Your task to perform on an android device: toggle notification dots Image 0: 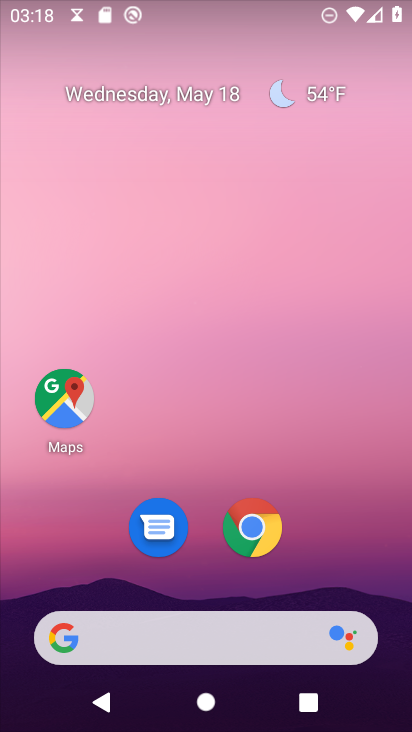
Step 0: drag from (230, 611) to (154, 56)
Your task to perform on an android device: toggle notification dots Image 1: 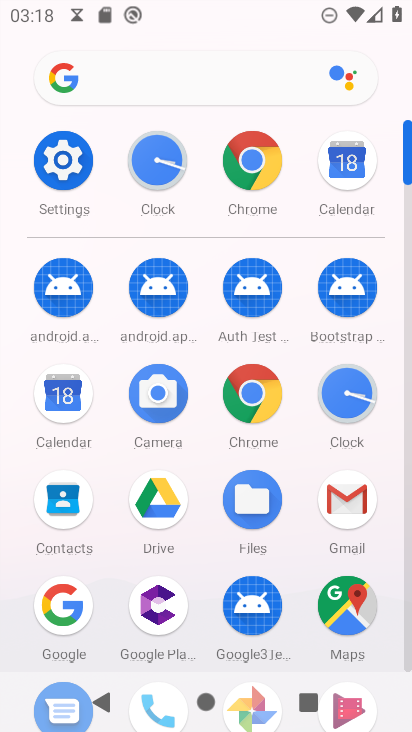
Step 1: click (84, 172)
Your task to perform on an android device: toggle notification dots Image 2: 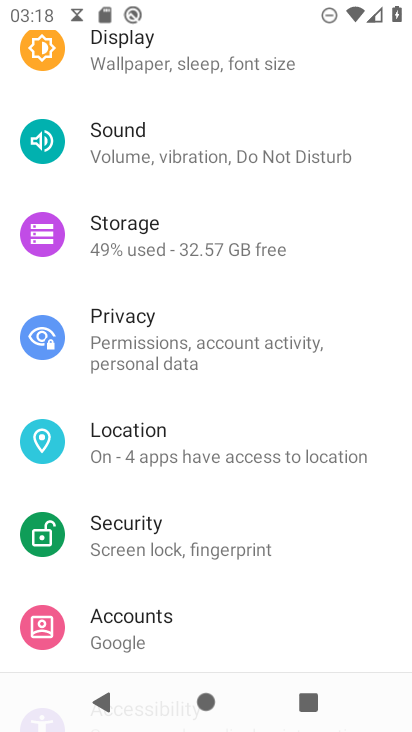
Step 2: drag from (201, 168) to (203, 640)
Your task to perform on an android device: toggle notification dots Image 3: 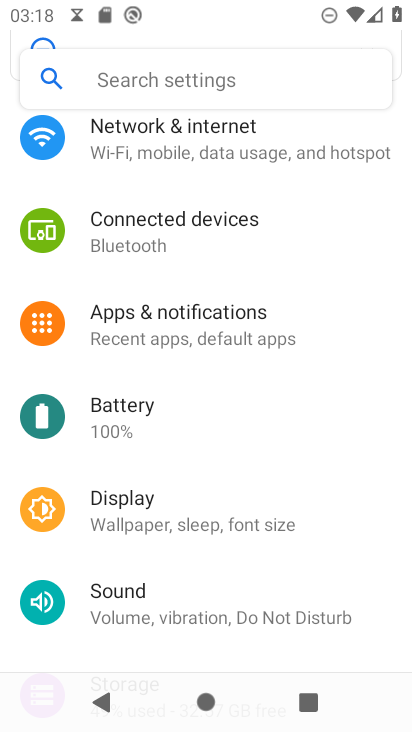
Step 3: click (218, 324)
Your task to perform on an android device: toggle notification dots Image 4: 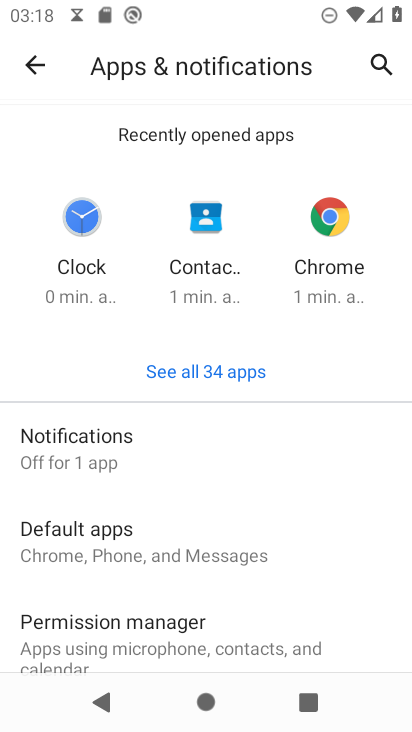
Step 4: drag from (234, 577) to (186, 81)
Your task to perform on an android device: toggle notification dots Image 5: 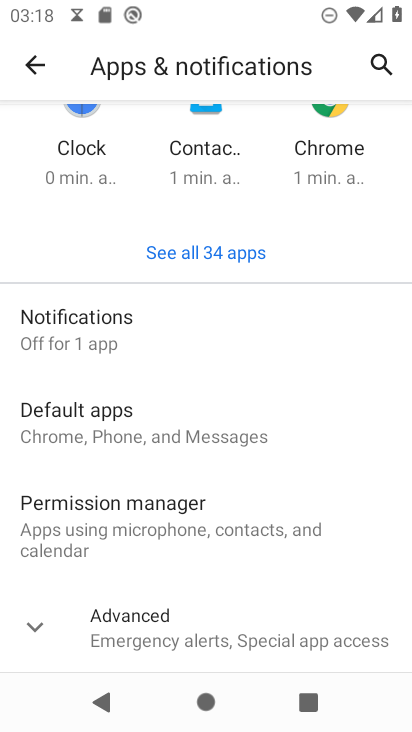
Step 5: click (238, 622)
Your task to perform on an android device: toggle notification dots Image 6: 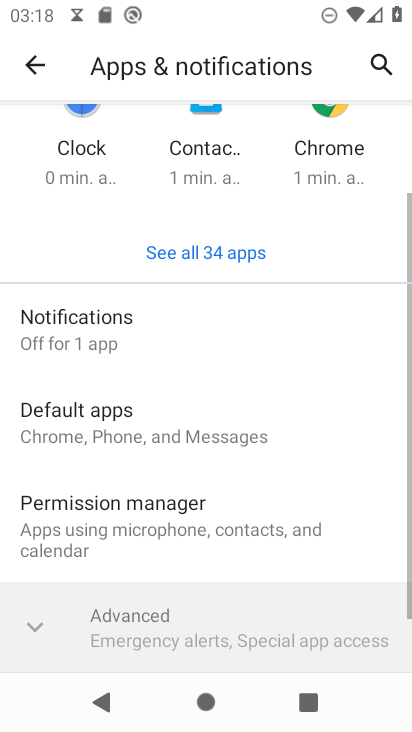
Step 6: drag from (238, 622) to (144, 122)
Your task to perform on an android device: toggle notification dots Image 7: 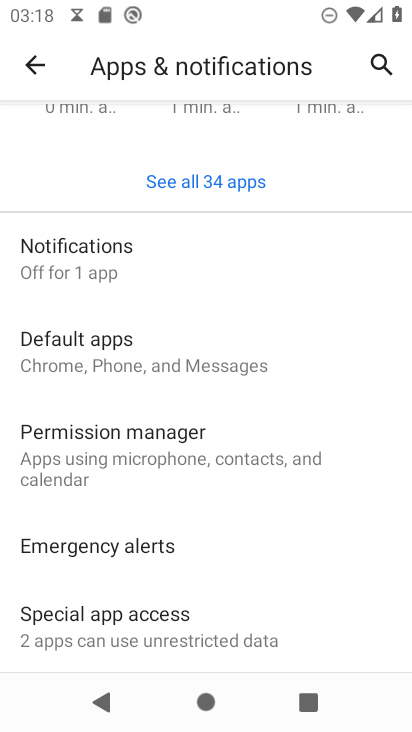
Step 7: click (120, 265)
Your task to perform on an android device: toggle notification dots Image 8: 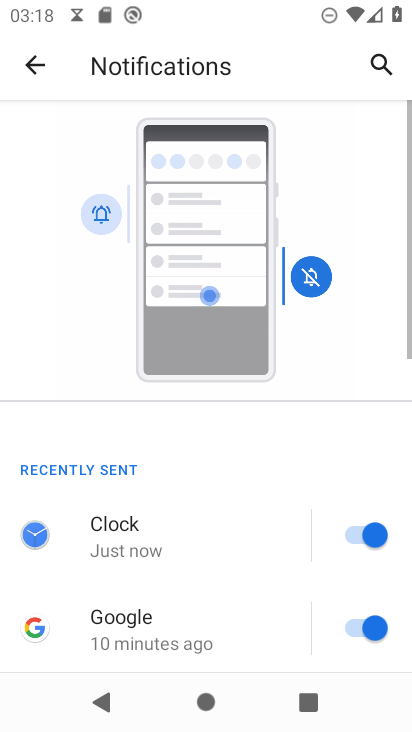
Step 8: drag from (215, 588) to (175, 108)
Your task to perform on an android device: toggle notification dots Image 9: 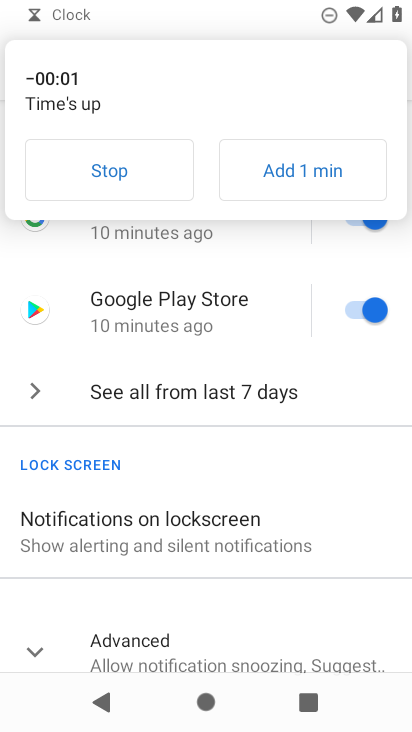
Step 9: click (161, 618)
Your task to perform on an android device: toggle notification dots Image 10: 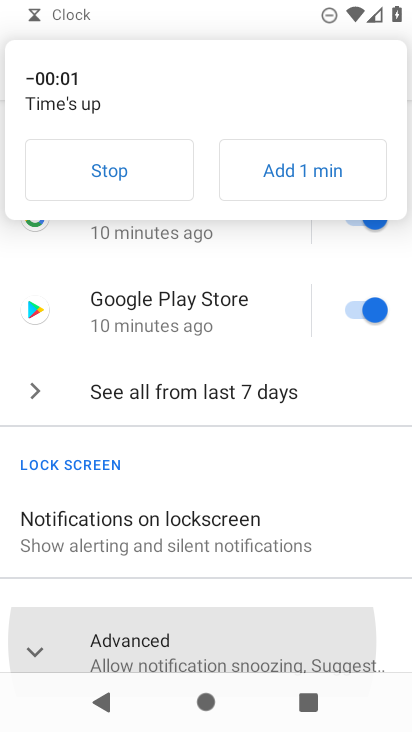
Step 10: drag from (161, 618) to (162, 128)
Your task to perform on an android device: toggle notification dots Image 11: 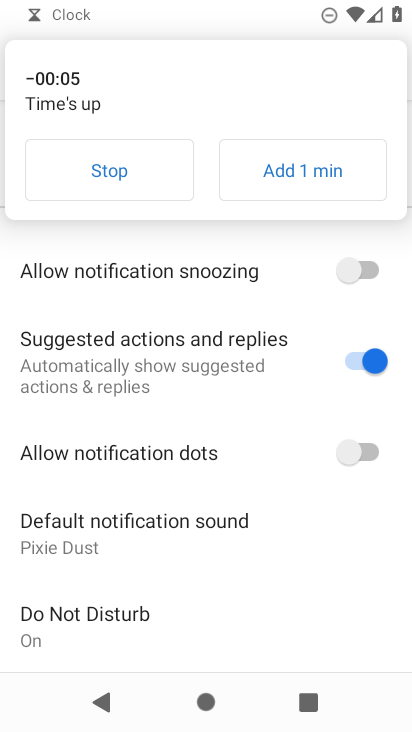
Step 11: click (371, 437)
Your task to perform on an android device: toggle notification dots Image 12: 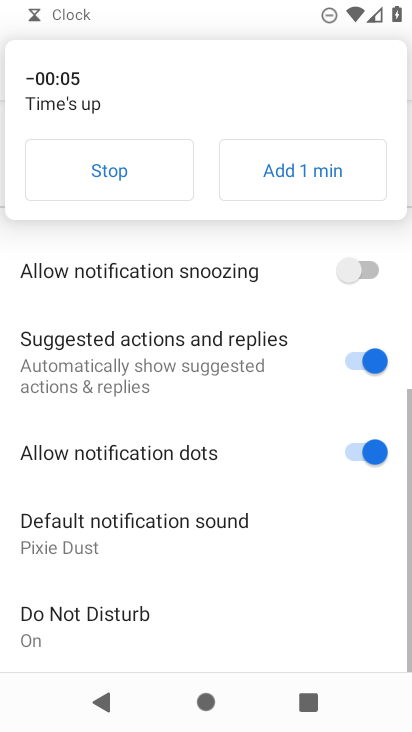
Step 12: task complete